Your task to perform on an android device: see creations saved in the google photos Image 0: 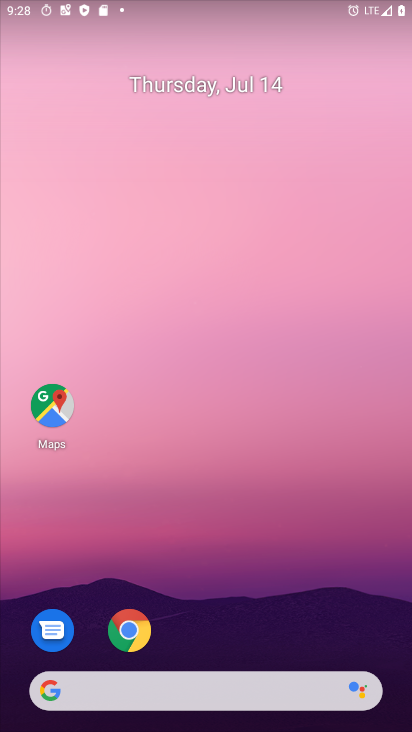
Step 0: drag from (199, 639) to (198, 178)
Your task to perform on an android device: see creations saved in the google photos Image 1: 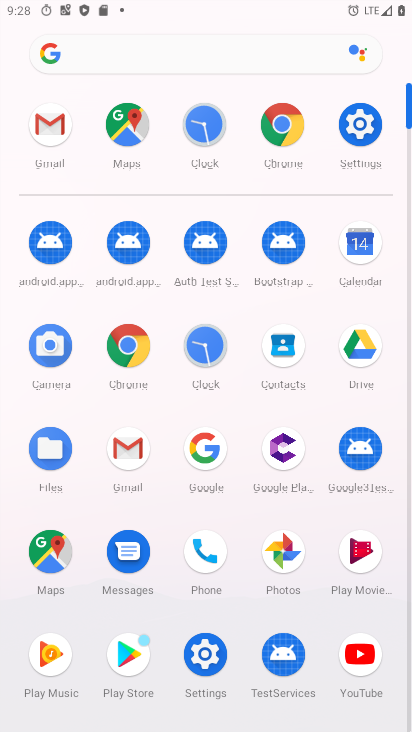
Step 1: click (287, 555)
Your task to perform on an android device: see creations saved in the google photos Image 2: 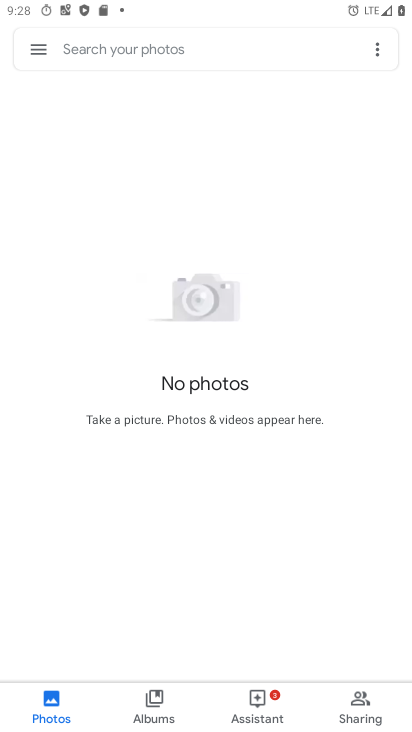
Step 2: click (157, 42)
Your task to perform on an android device: see creations saved in the google photos Image 3: 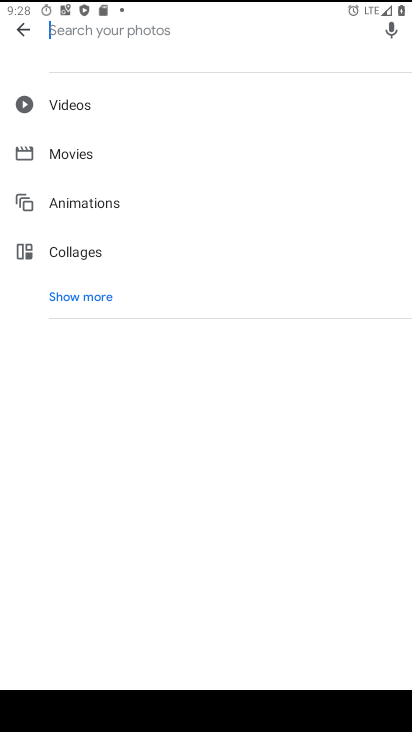
Step 3: click (84, 299)
Your task to perform on an android device: see creations saved in the google photos Image 4: 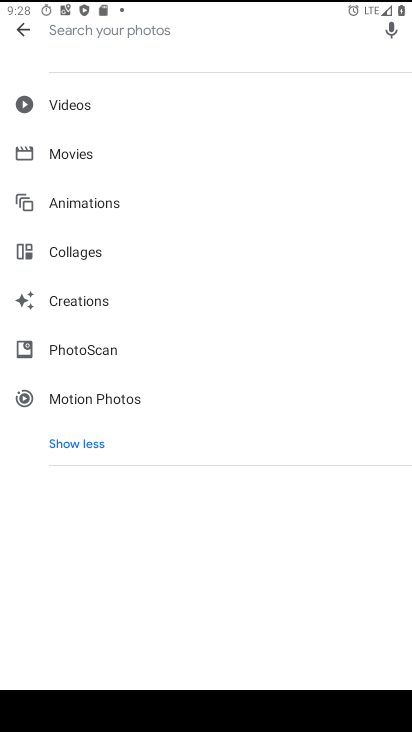
Step 4: click (80, 299)
Your task to perform on an android device: see creations saved in the google photos Image 5: 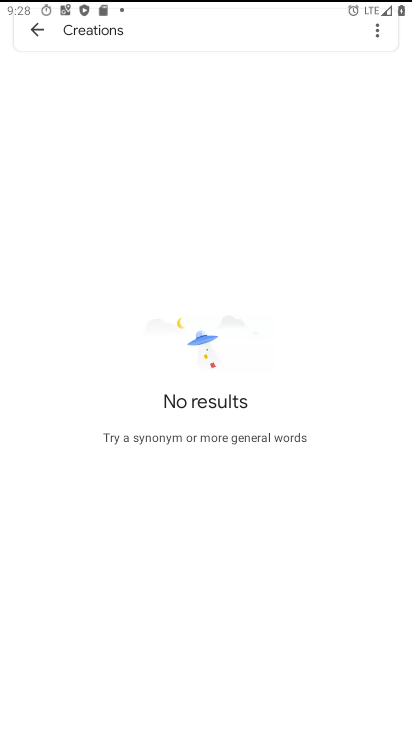
Step 5: task complete